Your task to perform on an android device: Search for the best rated headphones on AliExpress. Image 0: 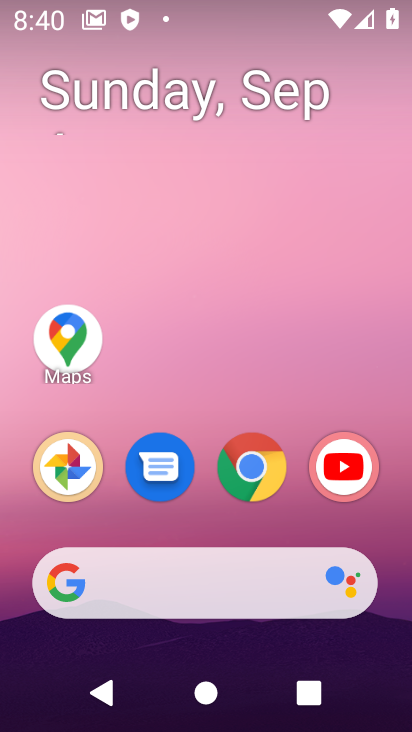
Step 0: click (313, 448)
Your task to perform on an android device: Search for the best rated headphones on AliExpress. Image 1: 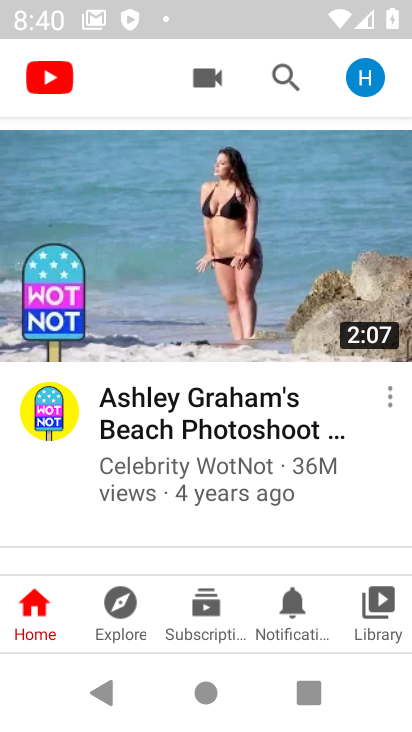
Step 1: click (280, 70)
Your task to perform on an android device: Search for the best rated headphones on AliExpress. Image 2: 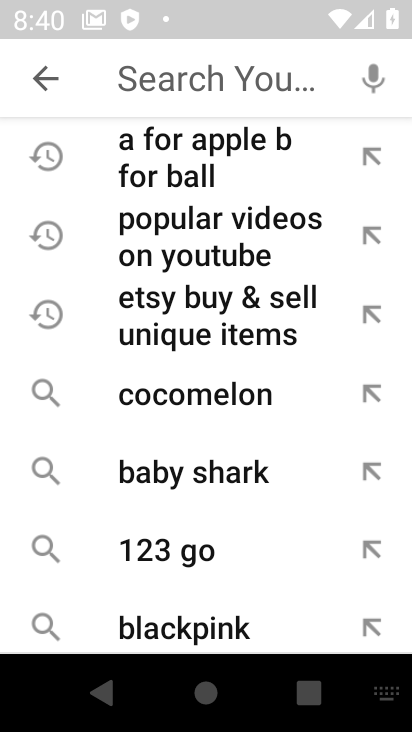
Step 2: type "ali express"
Your task to perform on an android device: Search for the best rated headphones on AliExpress. Image 3: 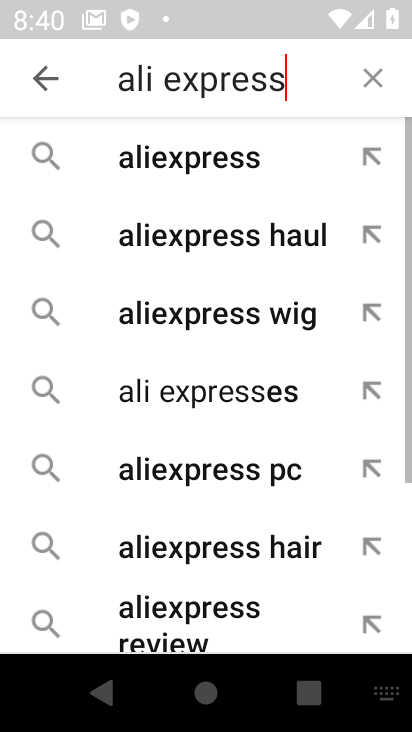
Step 3: type ""
Your task to perform on an android device: Search for the best rated headphones on AliExpress. Image 4: 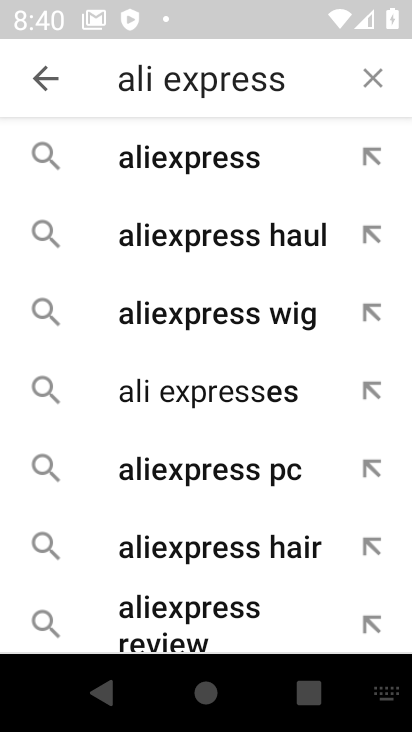
Step 4: click (213, 165)
Your task to perform on an android device: Search for the best rated headphones on AliExpress. Image 5: 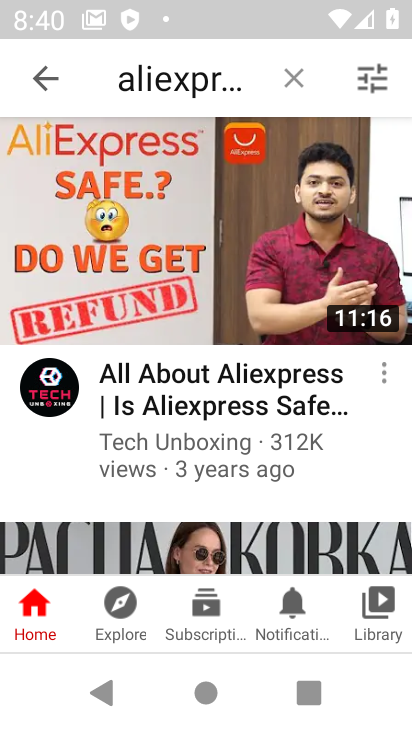
Step 5: drag from (350, 402) to (347, 119)
Your task to perform on an android device: Search for the best rated headphones on AliExpress. Image 6: 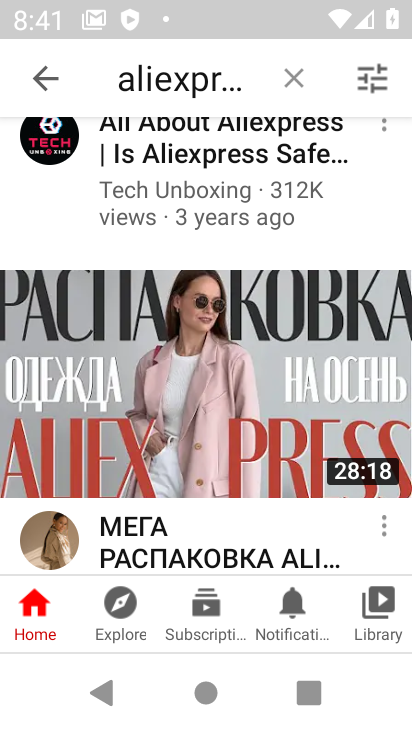
Step 6: press home button
Your task to perform on an android device: Search for the best rated headphones on AliExpress. Image 7: 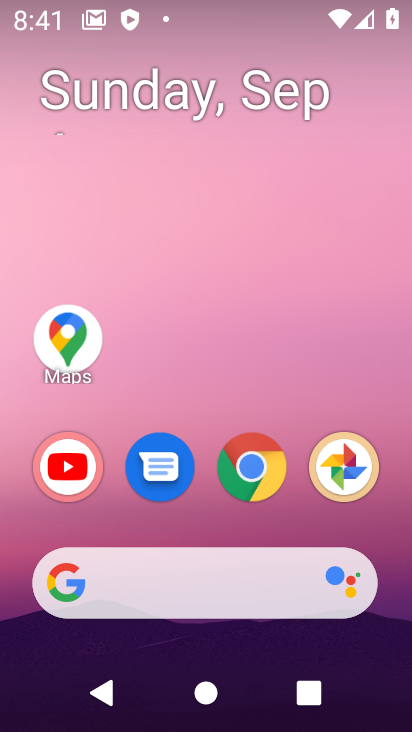
Step 7: click (242, 476)
Your task to perform on an android device: Search for the best rated headphones on AliExpress. Image 8: 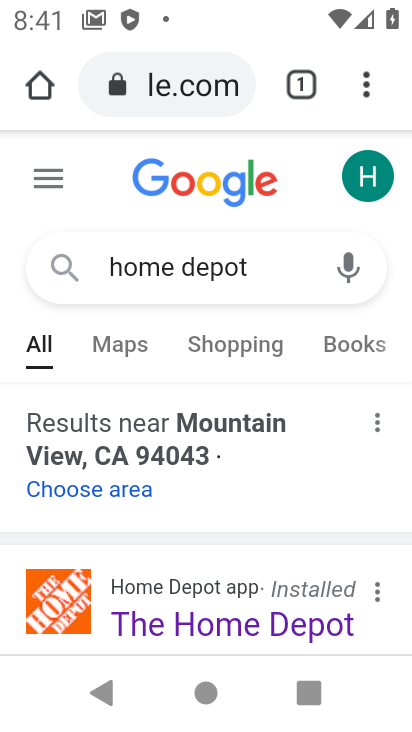
Step 8: click (206, 86)
Your task to perform on an android device: Search for the best rated headphones on AliExpress. Image 9: 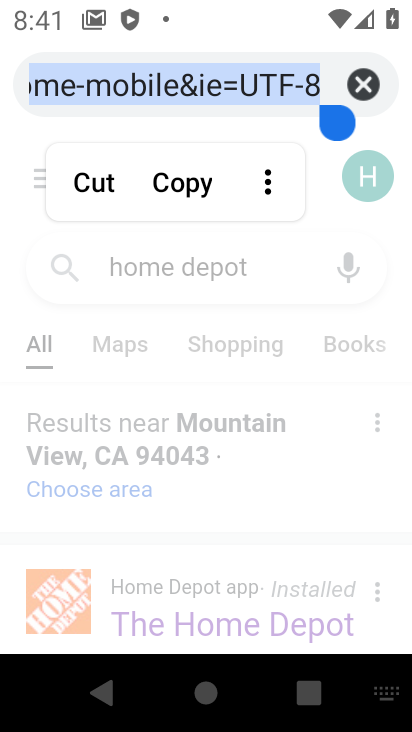
Step 9: type "ali express"
Your task to perform on an android device: Search for the best rated headphones on AliExpress. Image 10: 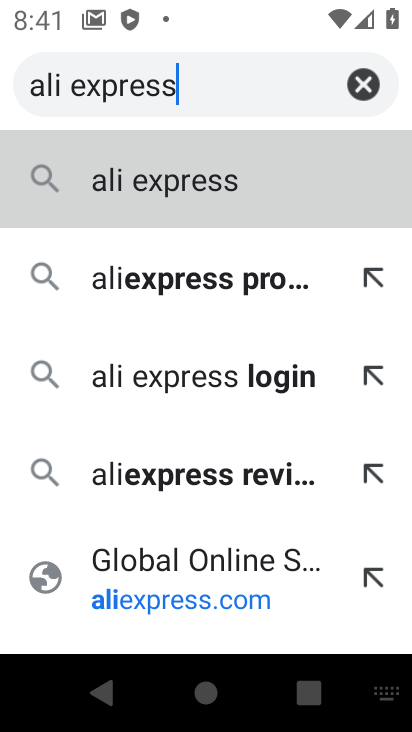
Step 10: click (154, 562)
Your task to perform on an android device: Search for the best rated headphones on AliExpress. Image 11: 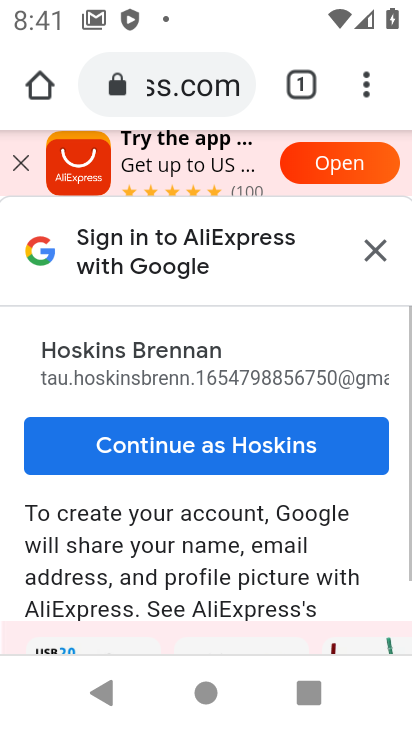
Step 11: click (217, 282)
Your task to perform on an android device: Search for the best rated headphones on AliExpress. Image 12: 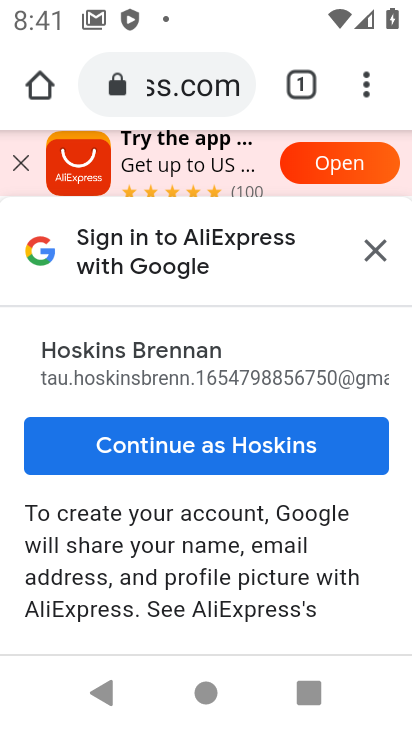
Step 12: click (376, 244)
Your task to perform on an android device: Search for the best rated headphones on AliExpress. Image 13: 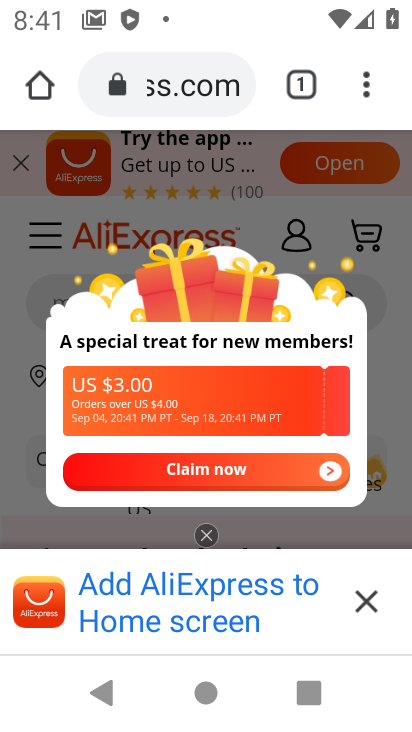
Step 13: click (367, 597)
Your task to perform on an android device: Search for the best rated headphones on AliExpress. Image 14: 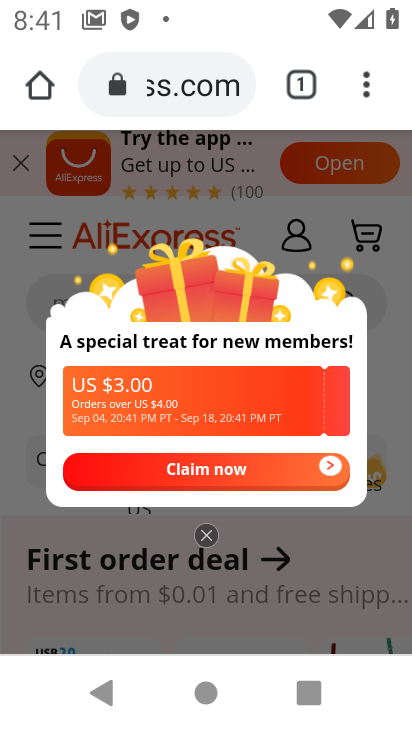
Step 14: click (211, 536)
Your task to perform on an android device: Search for the best rated headphones on AliExpress. Image 15: 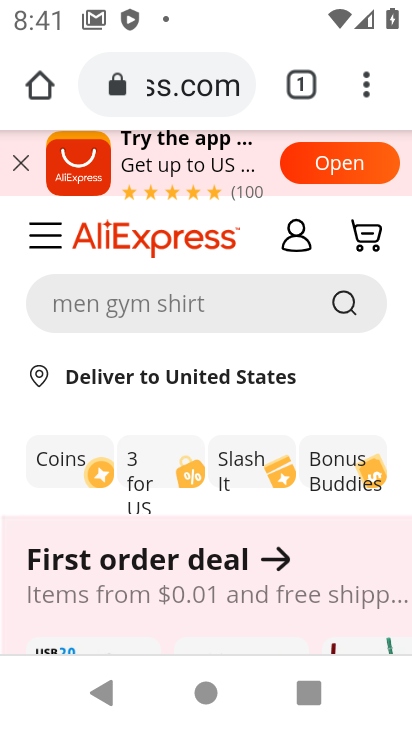
Step 15: click (197, 305)
Your task to perform on an android device: Search for the best rated headphones on AliExpress. Image 16: 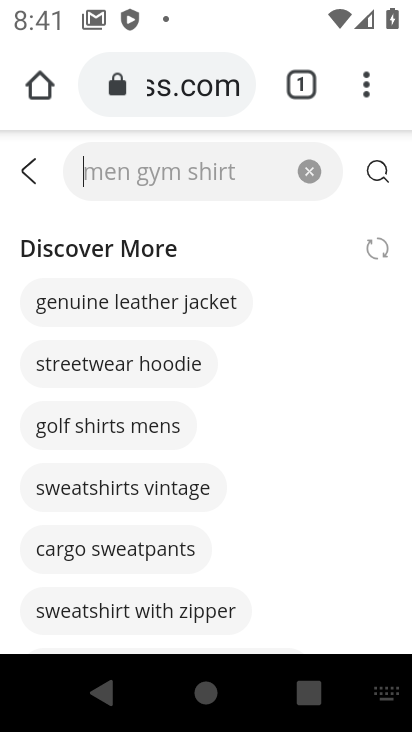
Step 16: type "headphones"
Your task to perform on an android device: Search for the best rated headphones on AliExpress. Image 17: 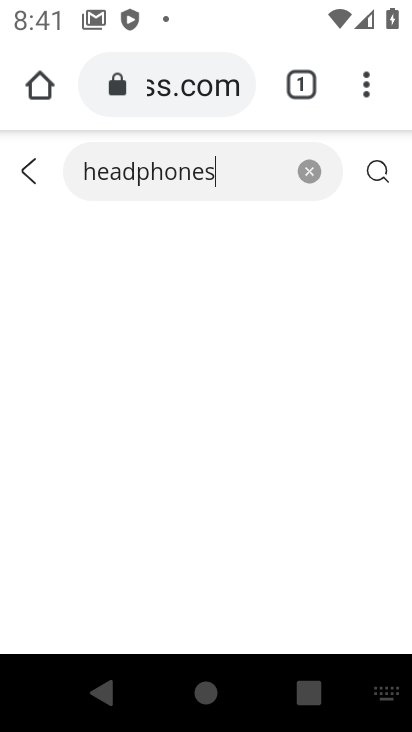
Step 17: type ""
Your task to perform on an android device: Search for the best rated headphones on AliExpress. Image 18: 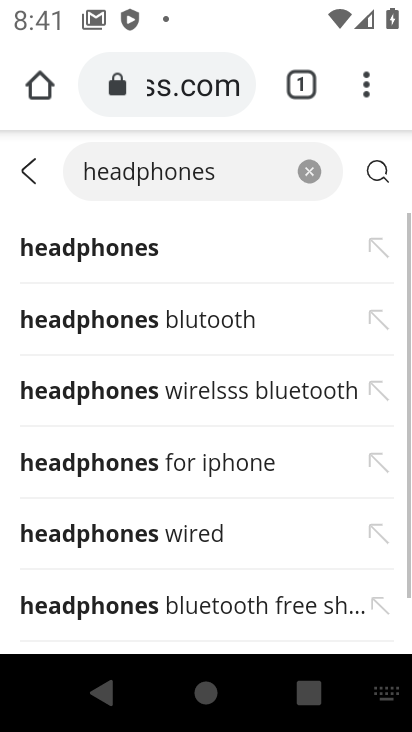
Step 18: click (110, 246)
Your task to perform on an android device: Search for the best rated headphones on AliExpress. Image 19: 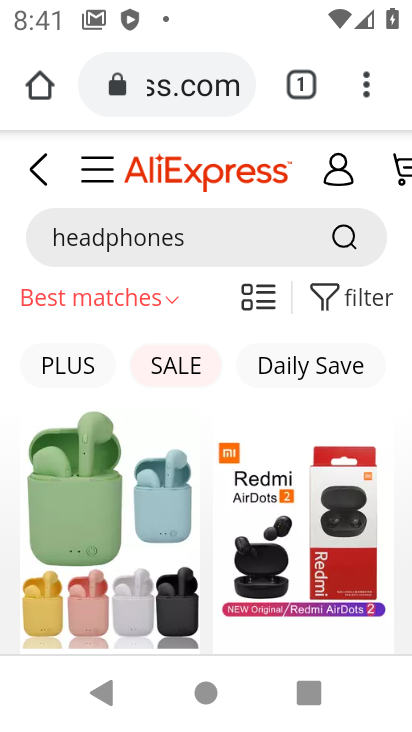
Step 19: click (386, 294)
Your task to perform on an android device: Search for the best rated headphones on AliExpress. Image 20: 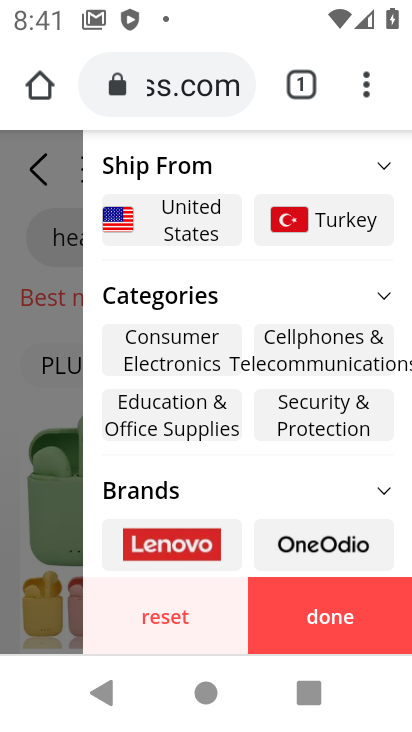
Step 20: drag from (261, 447) to (302, 267)
Your task to perform on an android device: Search for the best rated headphones on AliExpress. Image 21: 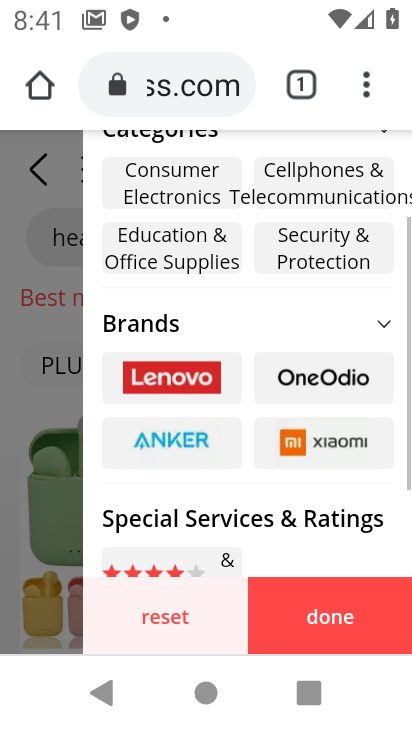
Step 21: drag from (382, 493) to (405, 284)
Your task to perform on an android device: Search for the best rated headphones on AliExpress. Image 22: 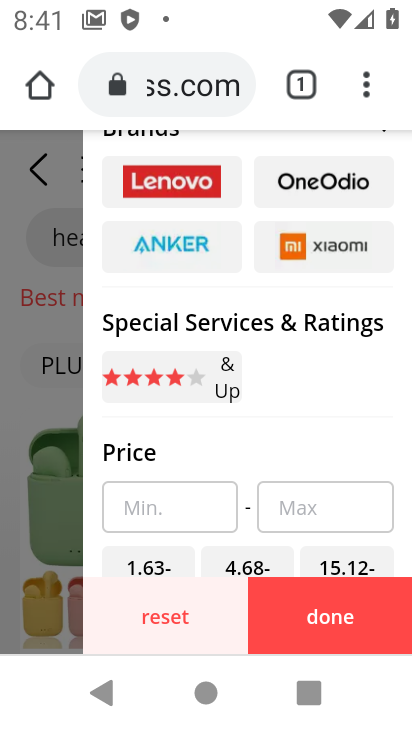
Step 22: click (145, 390)
Your task to perform on an android device: Search for the best rated headphones on AliExpress. Image 23: 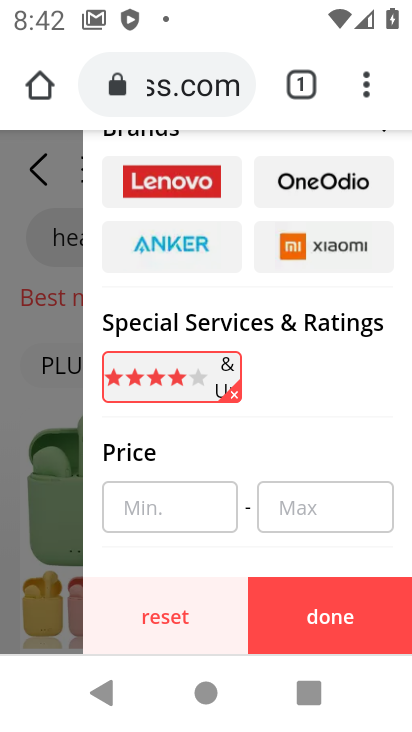
Step 23: click (346, 636)
Your task to perform on an android device: Search for the best rated headphones on AliExpress. Image 24: 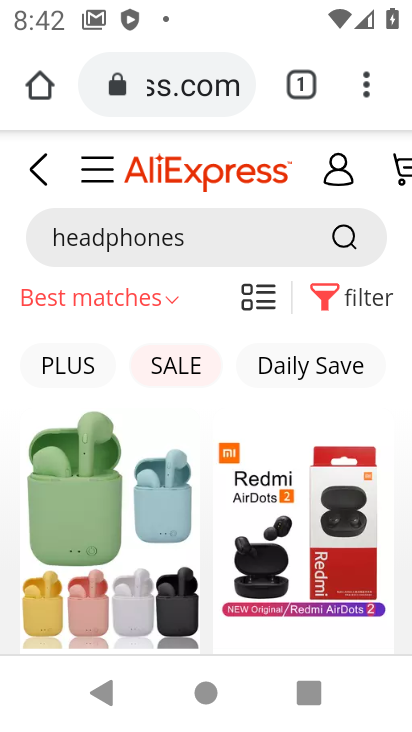
Step 24: drag from (401, 542) to (405, 310)
Your task to perform on an android device: Search for the best rated headphones on AliExpress. Image 25: 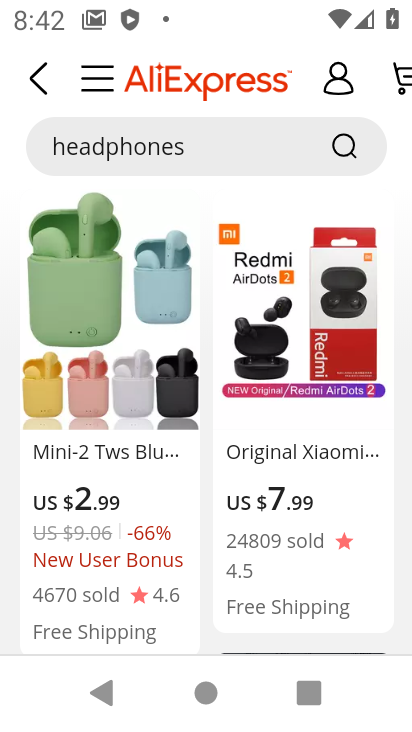
Step 25: click (347, 356)
Your task to perform on an android device: Search for the best rated headphones on AliExpress. Image 26: 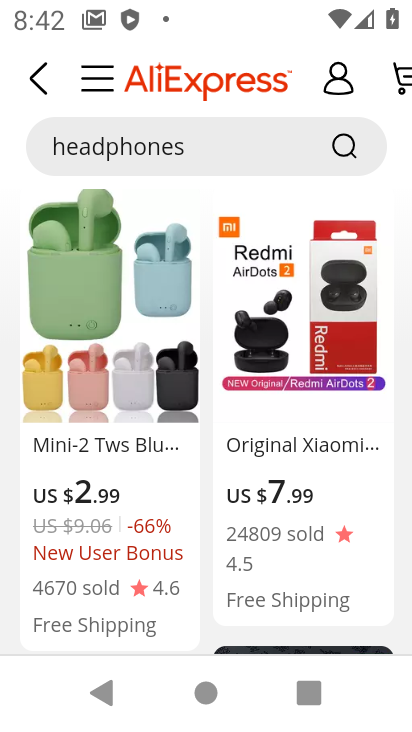
Step 26: drag from (403, 577) to (385, 206)
Your task to perform on an android device: Search for the best rated headphones on AliExpress. Image 27: 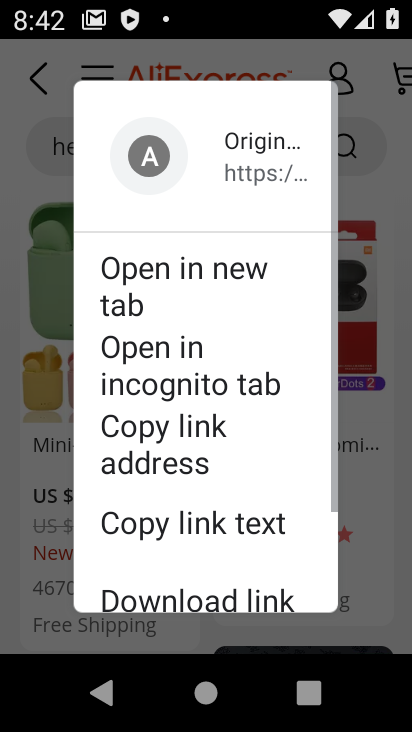
Step 27: click (401, 502)
Your task to perform on an android device: Search for the best rated headphones on AliExpress. Image 28: 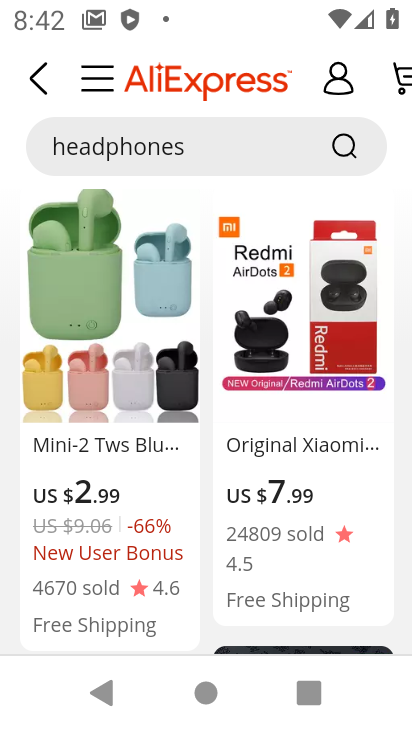
Step 28: task complete